Your task to perform on an android device: turn on sleep mode Image 0: 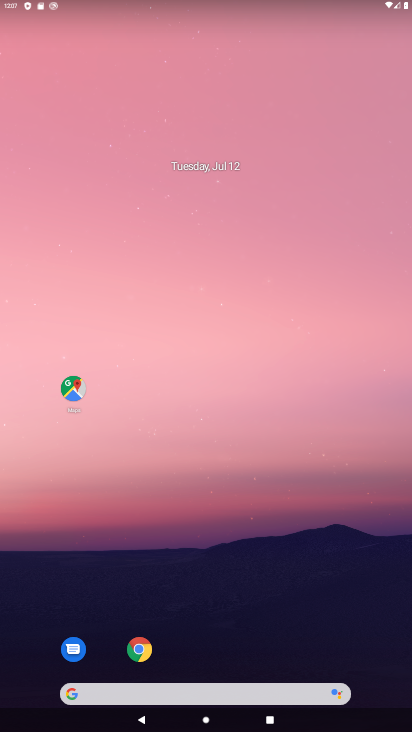
Step 0: drag from (242, 646) to (241, 51)
Your task to perform on an android device: turn on sleep mode Image 1: 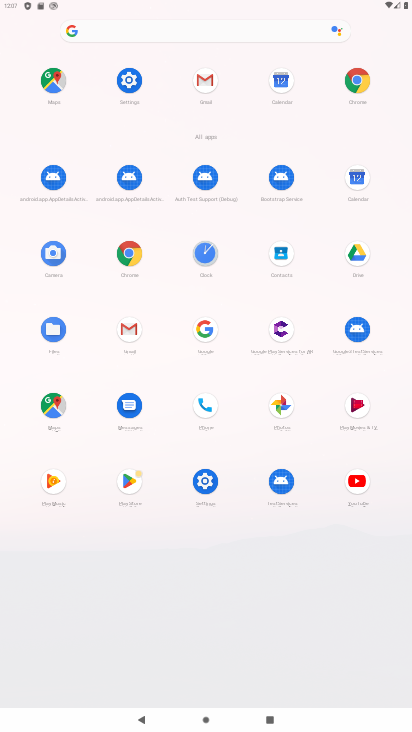
Step 1: click (142, 97)
Your task to perform on an android device: turn on sleep mode Image 2: 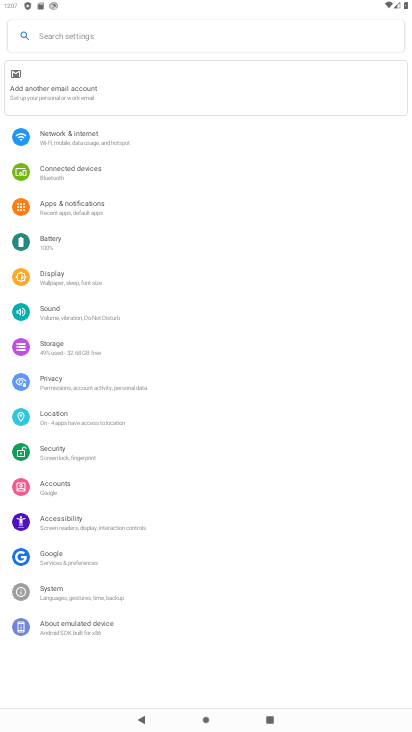
Step 2: click (110, 276)
Your task to perform on an android device: turn on sleep mode Image 3: 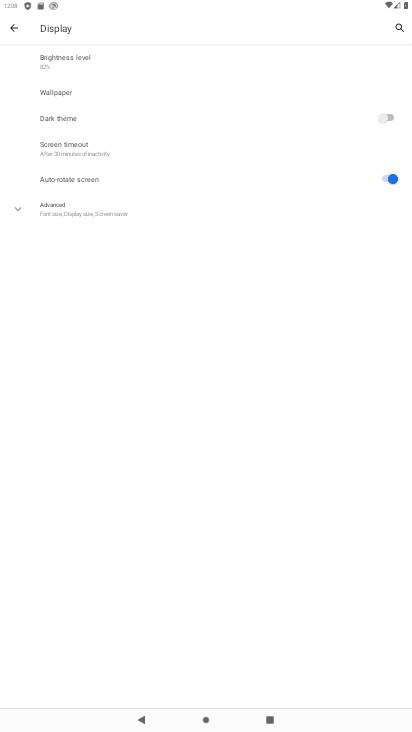
Step 3: click (81, 149)
Your task to perform on an android device: turn on sleep mode Image 4: 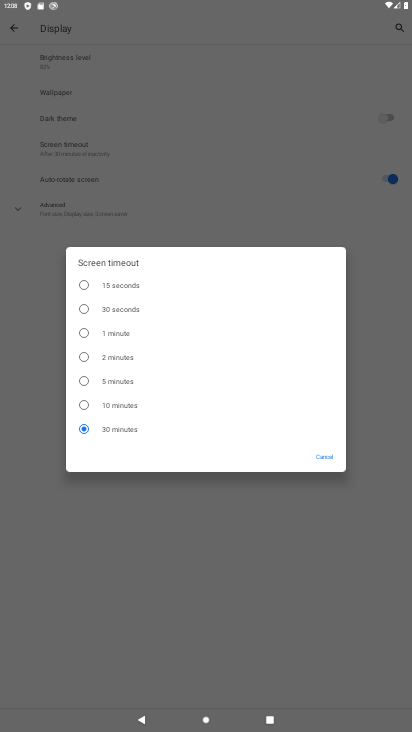
Step 4: click (118, 287)
Your task to perform on an android device: turn on sleep mode Image 5: 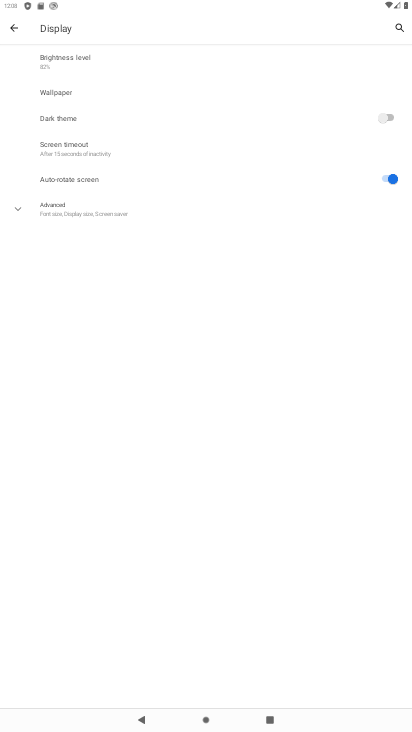
Step 5: task complete